Your task to perform on an android device: What's the weather going to be this weekend? Image 0: 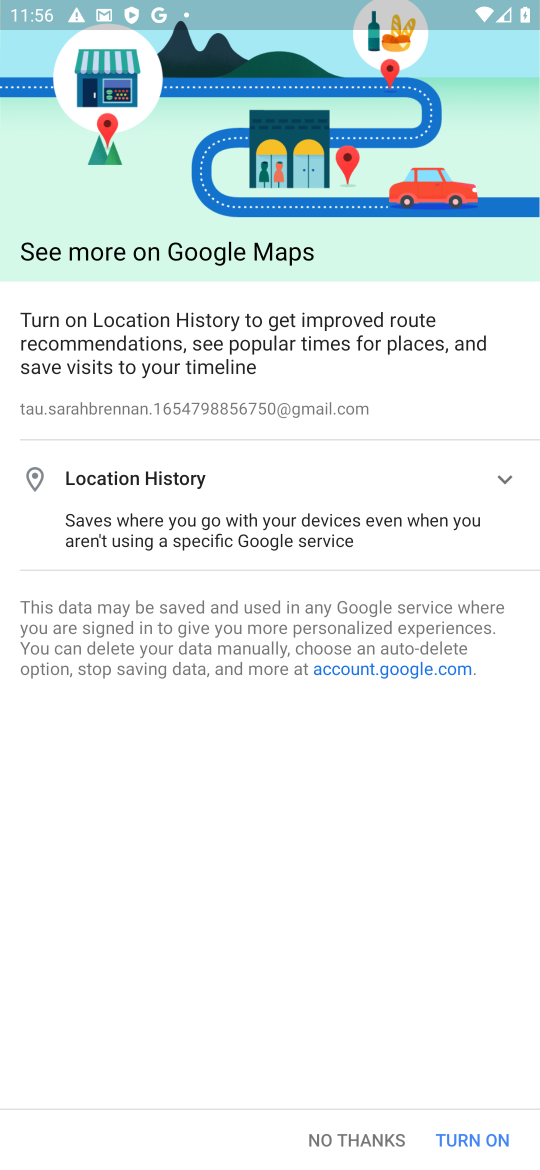
Step 0: press home button
Your task to perform on an android device: What's the weather going to be this weekend? Image 1: 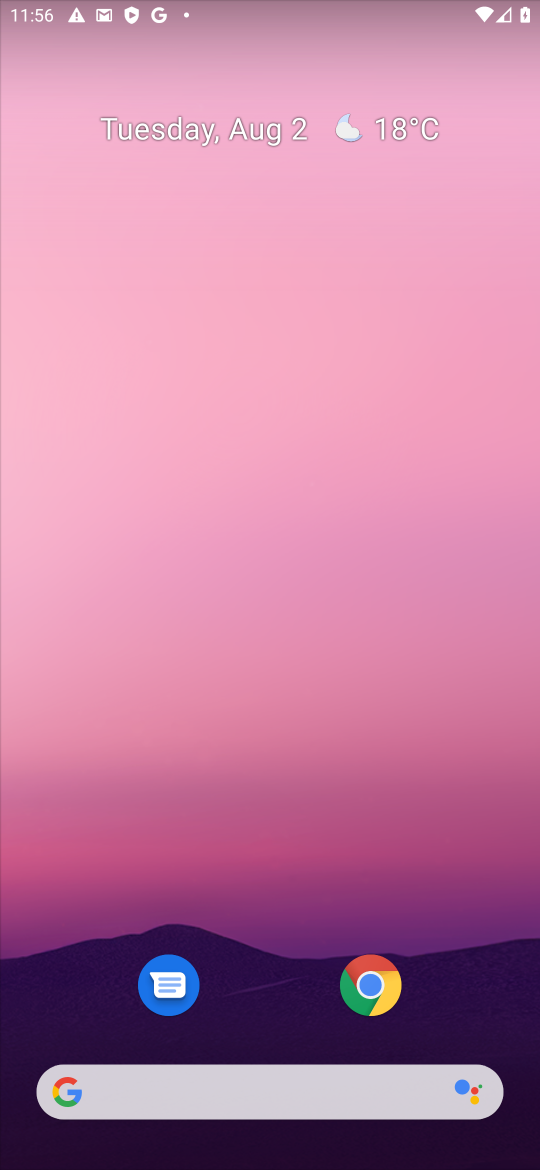
Step 1: click (302, 1102)
Your task to perform on an android device: What's the weather going to be this weekend? Image 2: 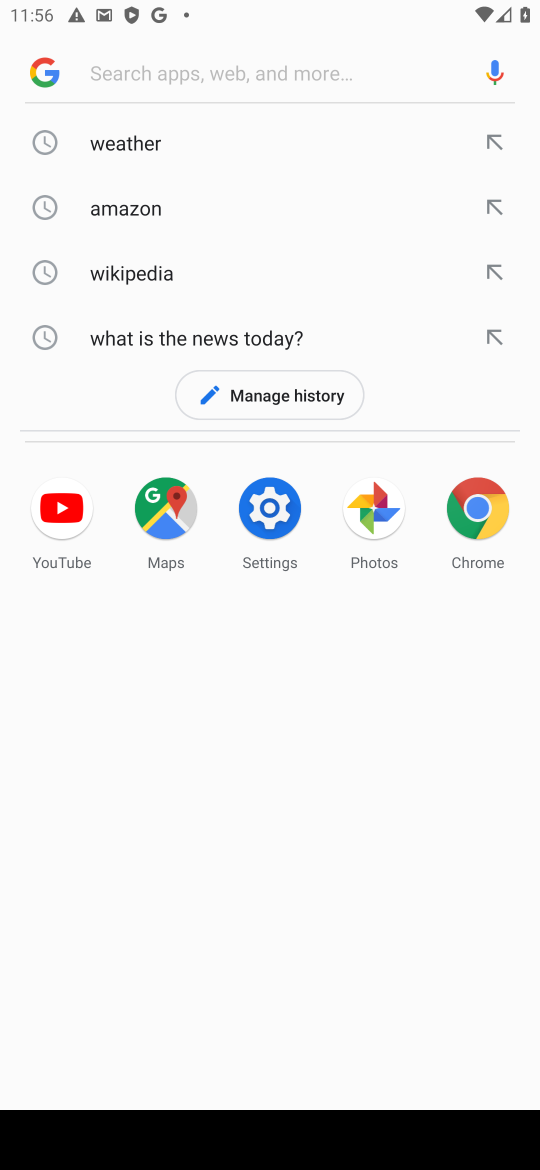
Step 2: click (166, 157)
Your task to perform on an android device: What's the weather going to be this weekend? Image 3: 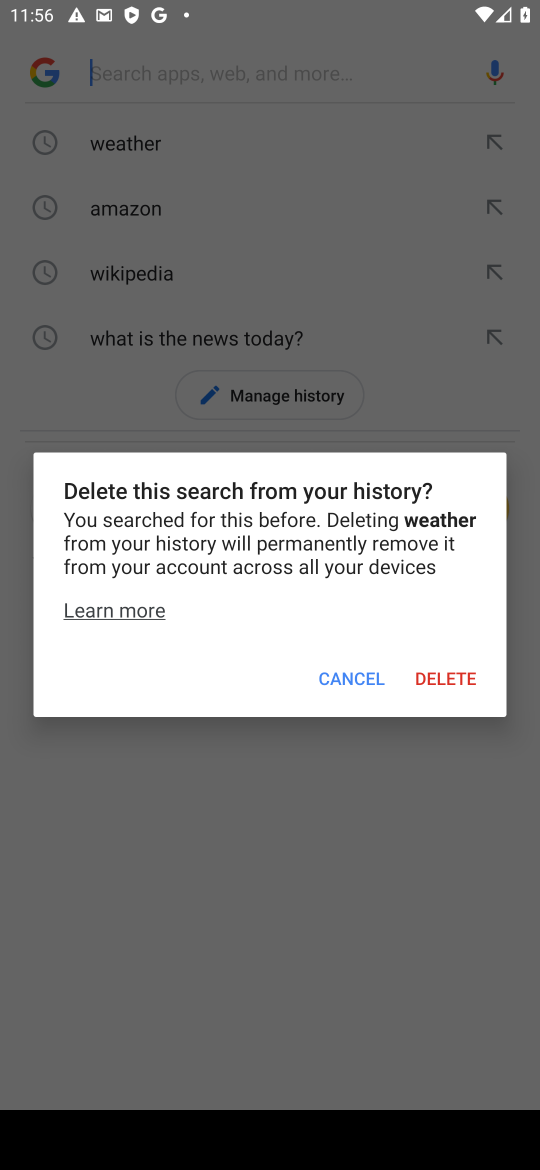
Step 3: click (442, 661)
Your task to perform on an android device: What's the weather going to be this weekend? Image 4: 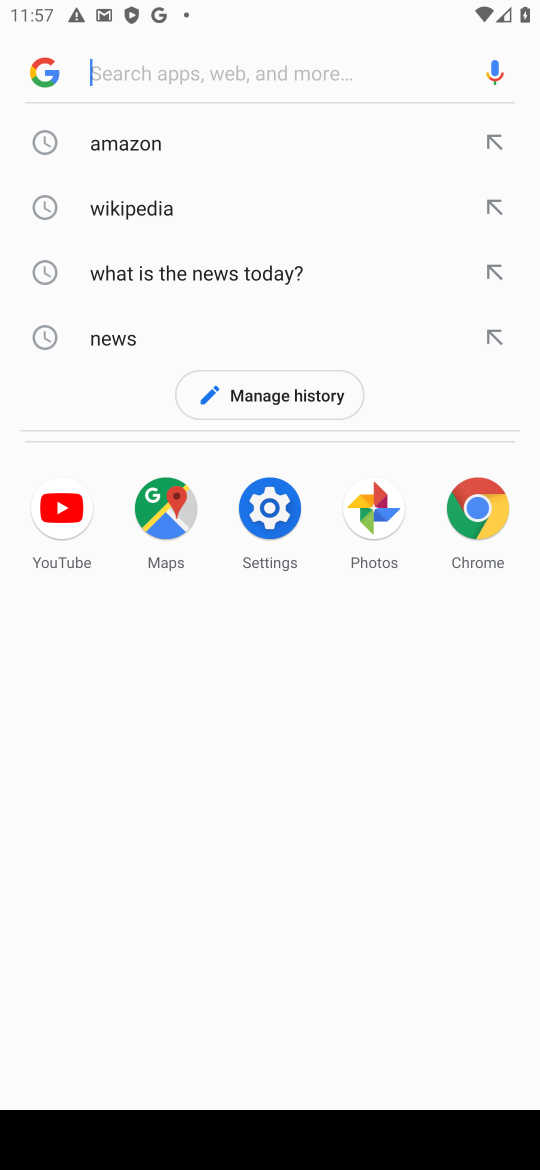
Step 4: click (186, 358)
Your task to perform on an android device: What's the weather going to be this weekend? Image 5: 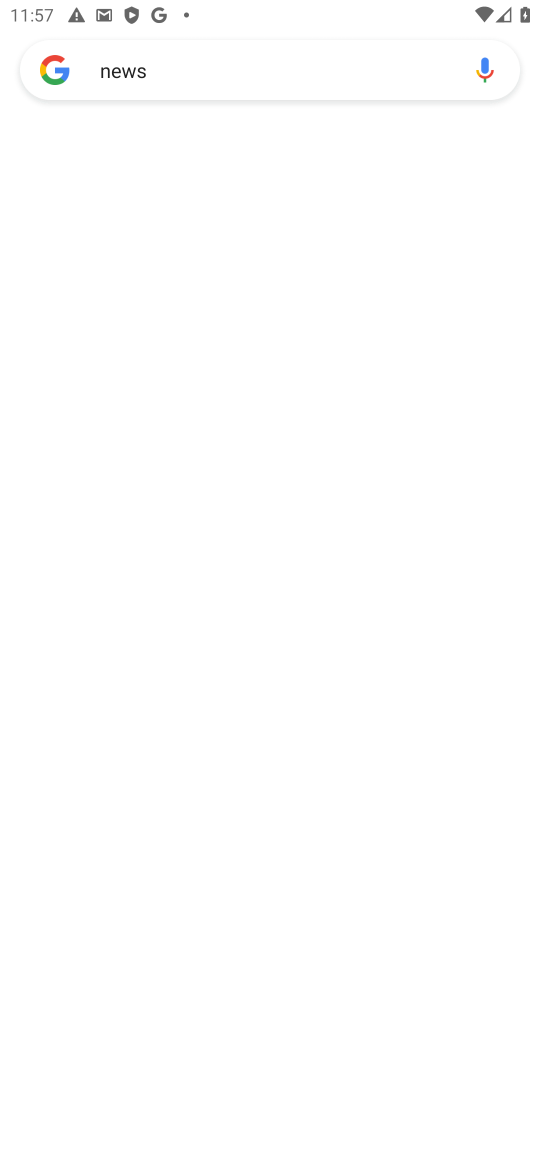
Step 5: task complete